Your task to perform on an android device: Show the shopping cart on costco. Search for "energizer triple a" on costco, select the first entry, and add it to the cart. Image 0: 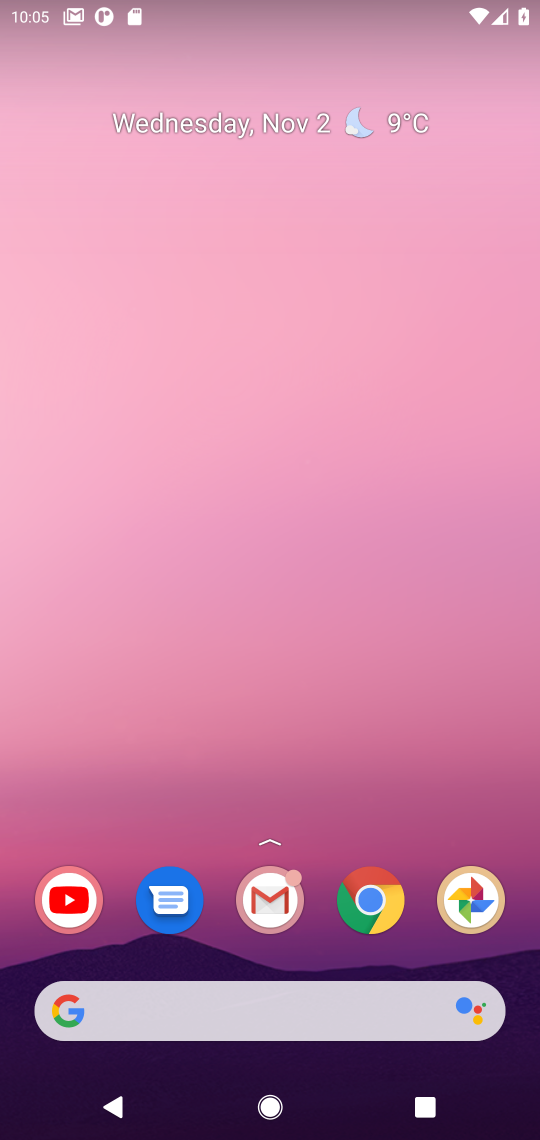
Step 0: click (381, 912)
Your task to perform on an android device: Show the shopping cart on costco. Search for "energizer triple a" on costco, select the first entry, and add it to the cart. Image 1: 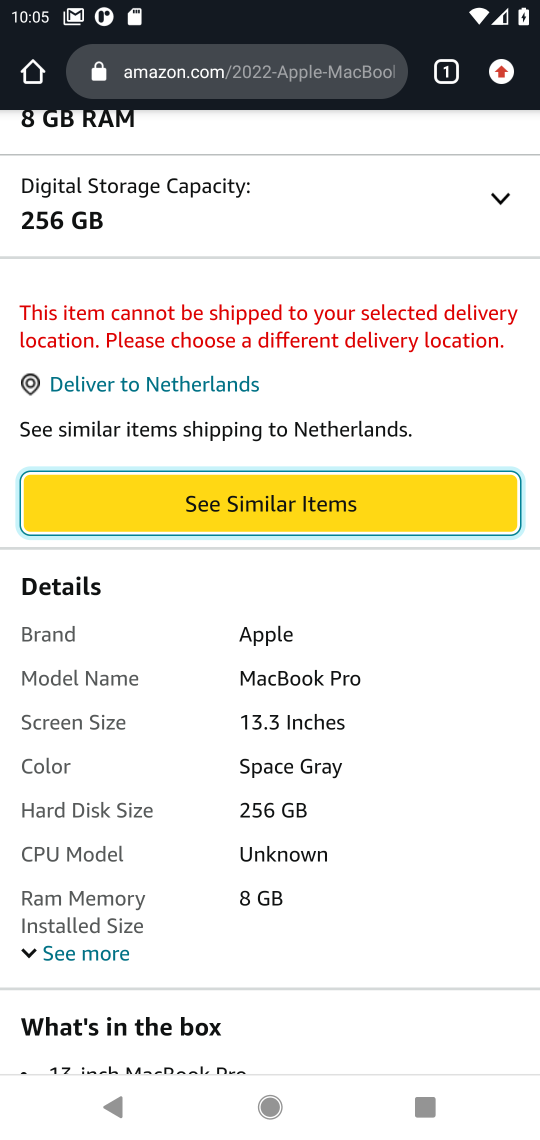
Step 1: click (172, 90)
Your task to perform on an android device: Show the shopping cart on costco. Search for "energizer triple a" on costco, select the first entry, and add it to the cart. Image 2: 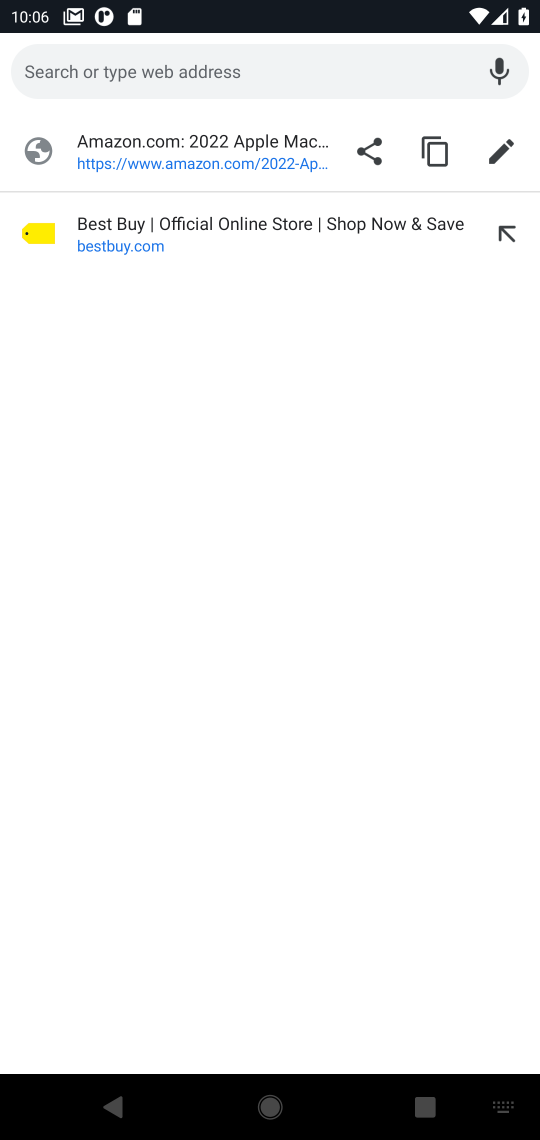
Step 2: type "costco"
Your task to perform on an android device: Show the shopping cart on costco. Search for "energizer triple a" on costco, select the first entry, and add it to the cart. Image 3: 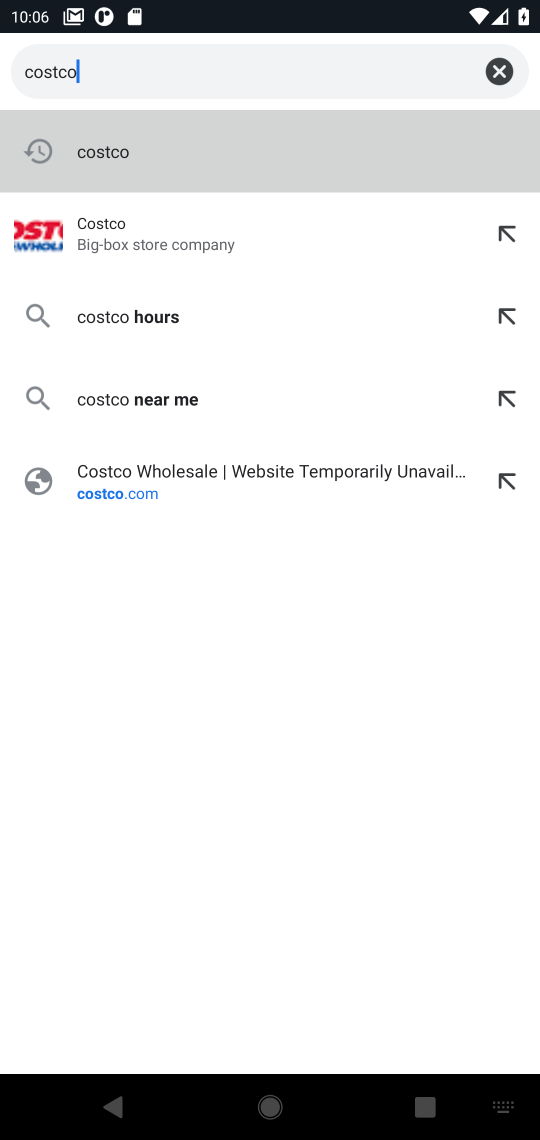
Step 3: click (89, 245)
Your task to perform on an android device: Show the shopping cart on costco. Search for "energizer triple a" on costco, select the first entry, and add it to the cart. Image 4: 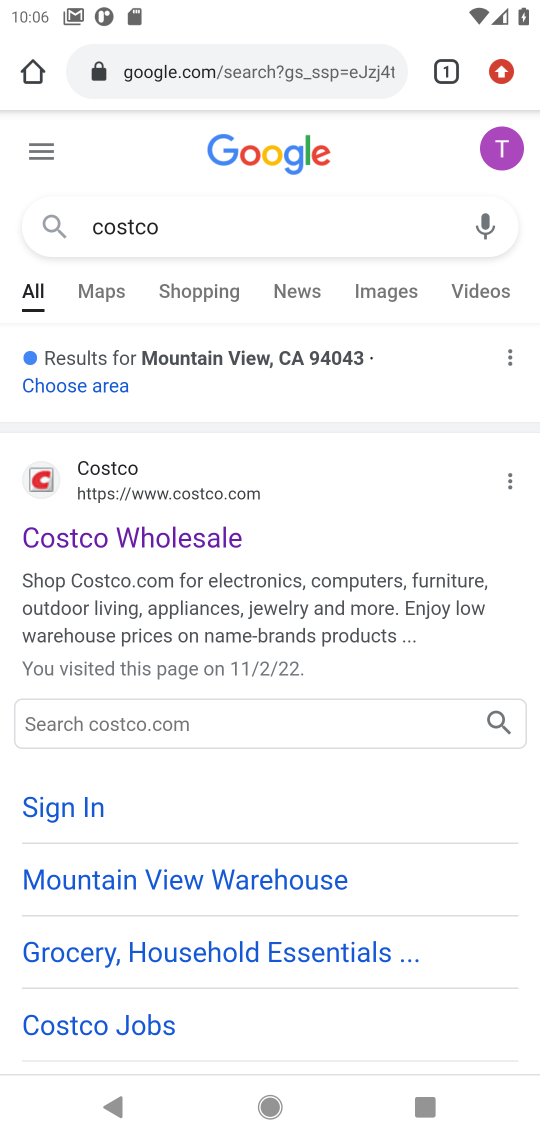
Step 4: click (131, 529)
Your task to perform on an android device: Show the shopping cart on costco. Search for "energizer triple a" on costco, select the first entry, and add it to the cart. Image 5: 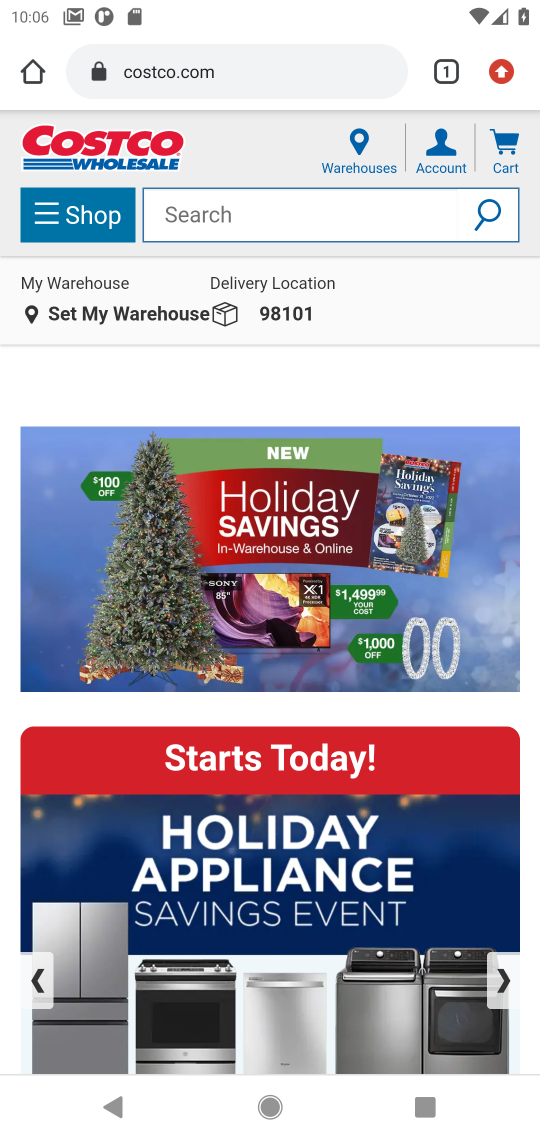
Step 5: click (241, 204)
Your task to perform on an android device: Show the shopping cart on costco. Search for "energizer triple a" on costco, select the first entry, and add it to the cart. Image 6: 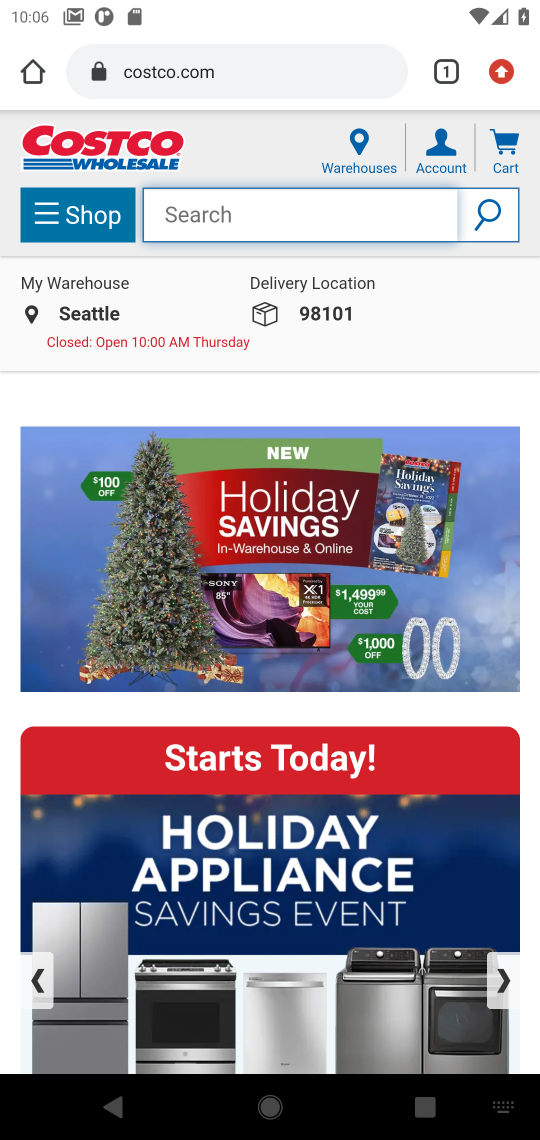
Step 6: type "energizer triple a"
Your task to perform on an android device: Show the shopping cart on costco. Search for "energizer triple a" on costco, select the first entry, and add it to the cart. Image 7: 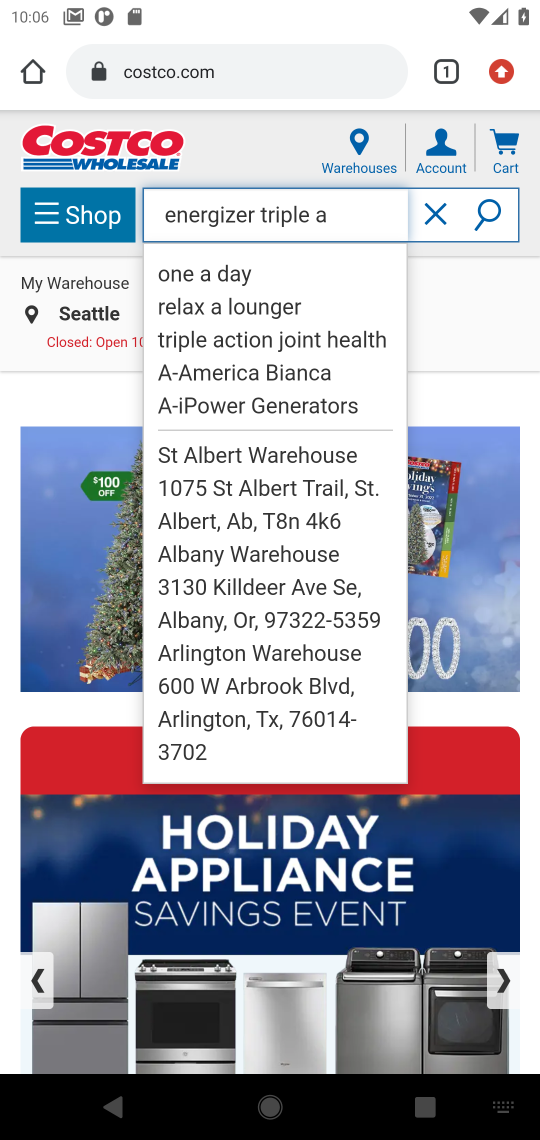
Step 7: click (477, 228)
Your task to perform on an android device: Show the shopping cart on costco. Search for "energizer triple a" on costco, select the first entry, and add it to the cart. Image 8: 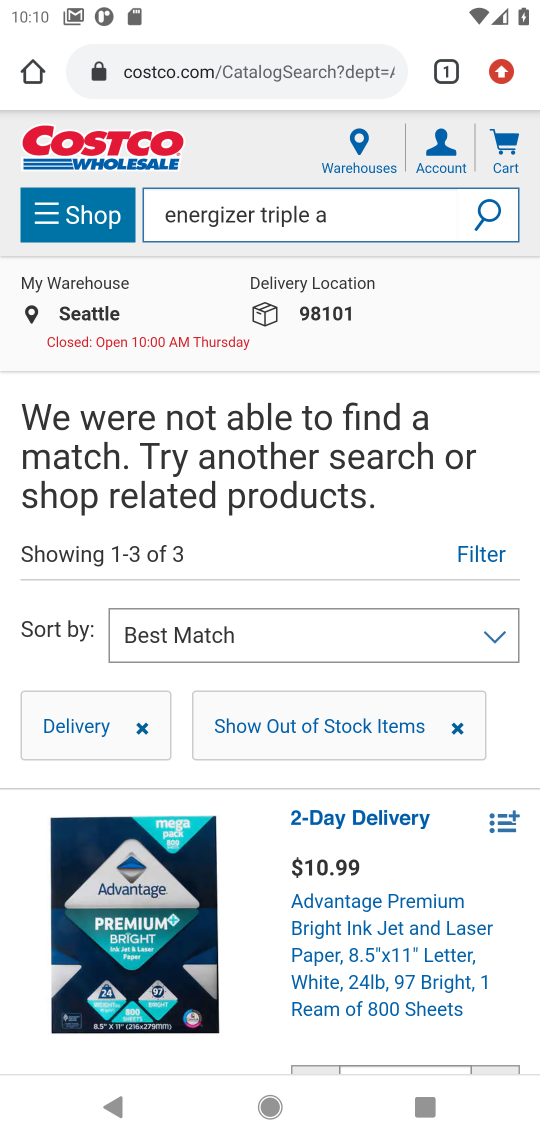
Step 8: task complete